Your task to perform on an android device: set default search engine in the chrome app Image 0: 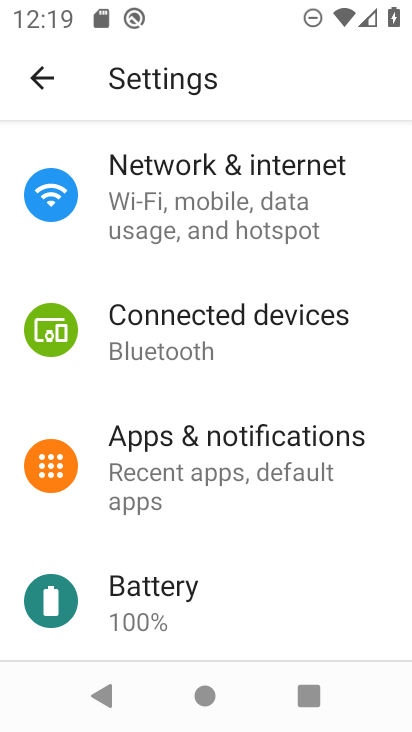
Step 0: press home button
Your task to perform on an android device: set default search engine in the chrome app Image 1: 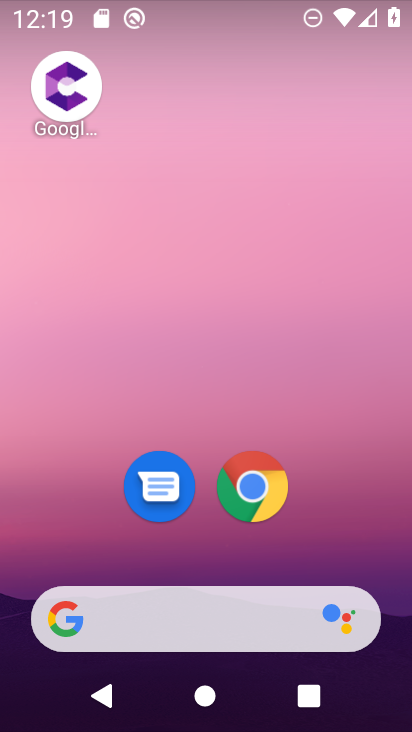
Step 1: drag from (184, 558) to (246, 171)
Your task to perform on an android device: set default search engine in the chrome app Image 2: 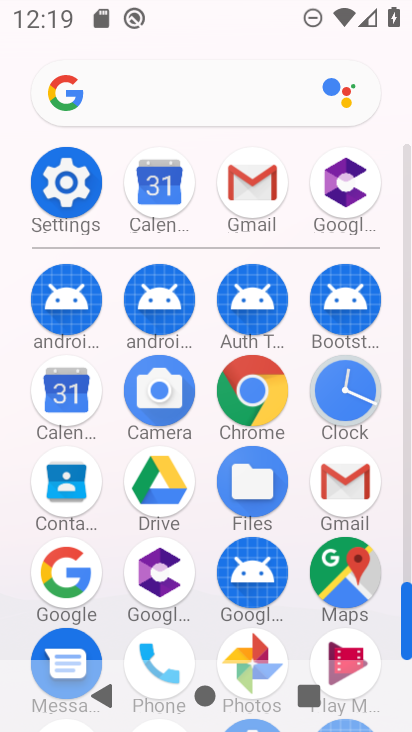
Step 2: click (267, 404)
Your task to perform on an android device: set default search engine in the chrome app Image 3: 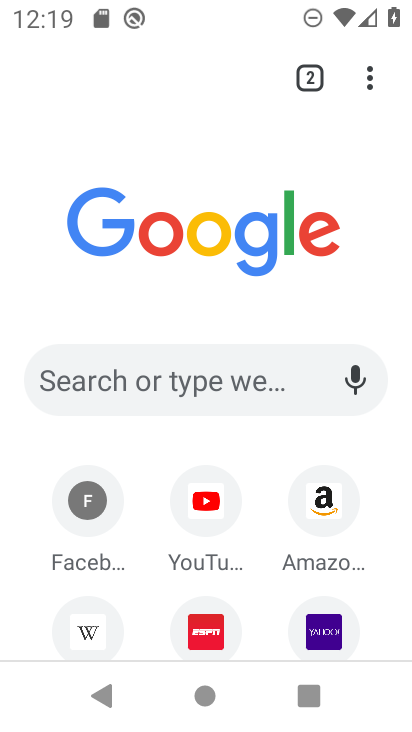
Step 3: click (370, 92)
Your task to perform on an android device: set default search engine in the chrome app Image 4: 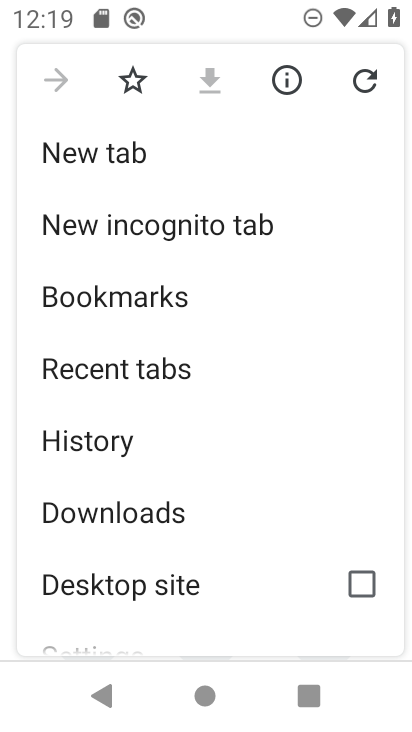
Step 4: drag from (165, 533) to (192, 238)
Your task to perform on an android device: set default search engine in the chrome app Image 5: 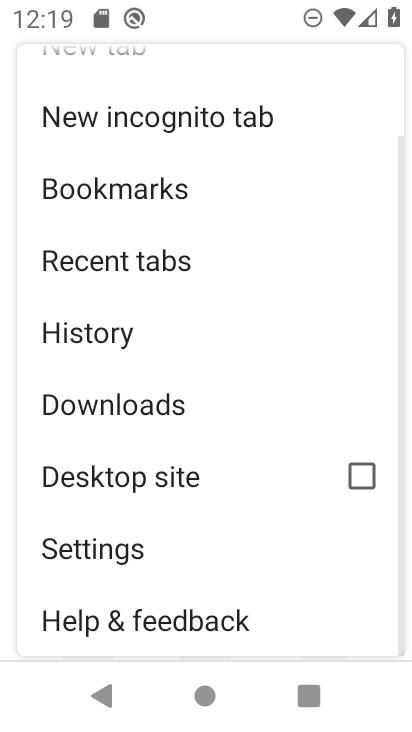
Step 5: click (137, 558)
Your task to perform on an android device: set default search engine in the chrome app Image 6: 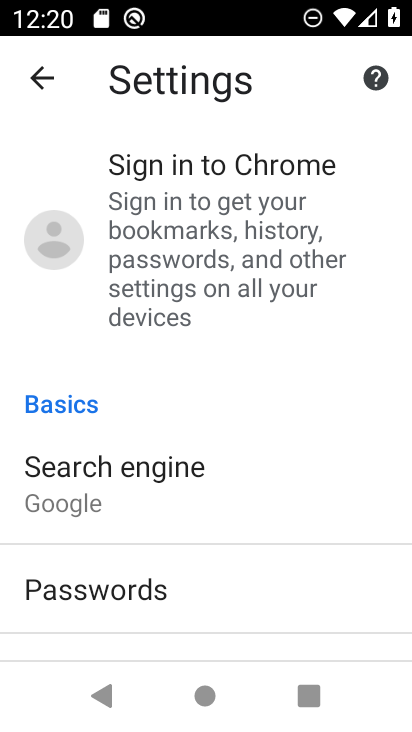
Step 6: click (153, 509)
Your task to perform on an android device: set default search engine in the chrome app Image 7: 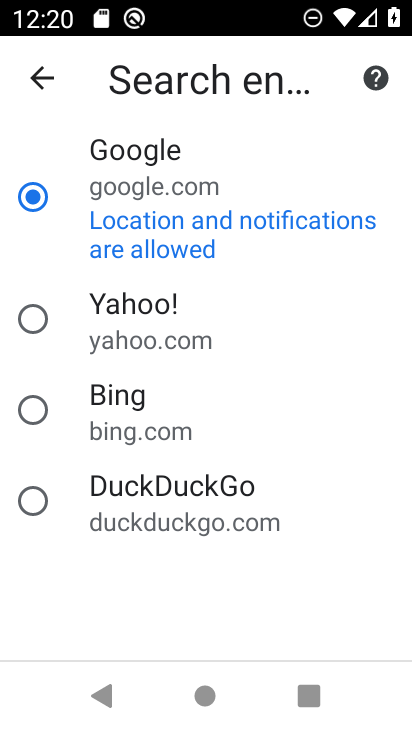
Step 7: task complete